Your task to perform on an android device: install app "LiveIn - Share Your Moment" Image 0: 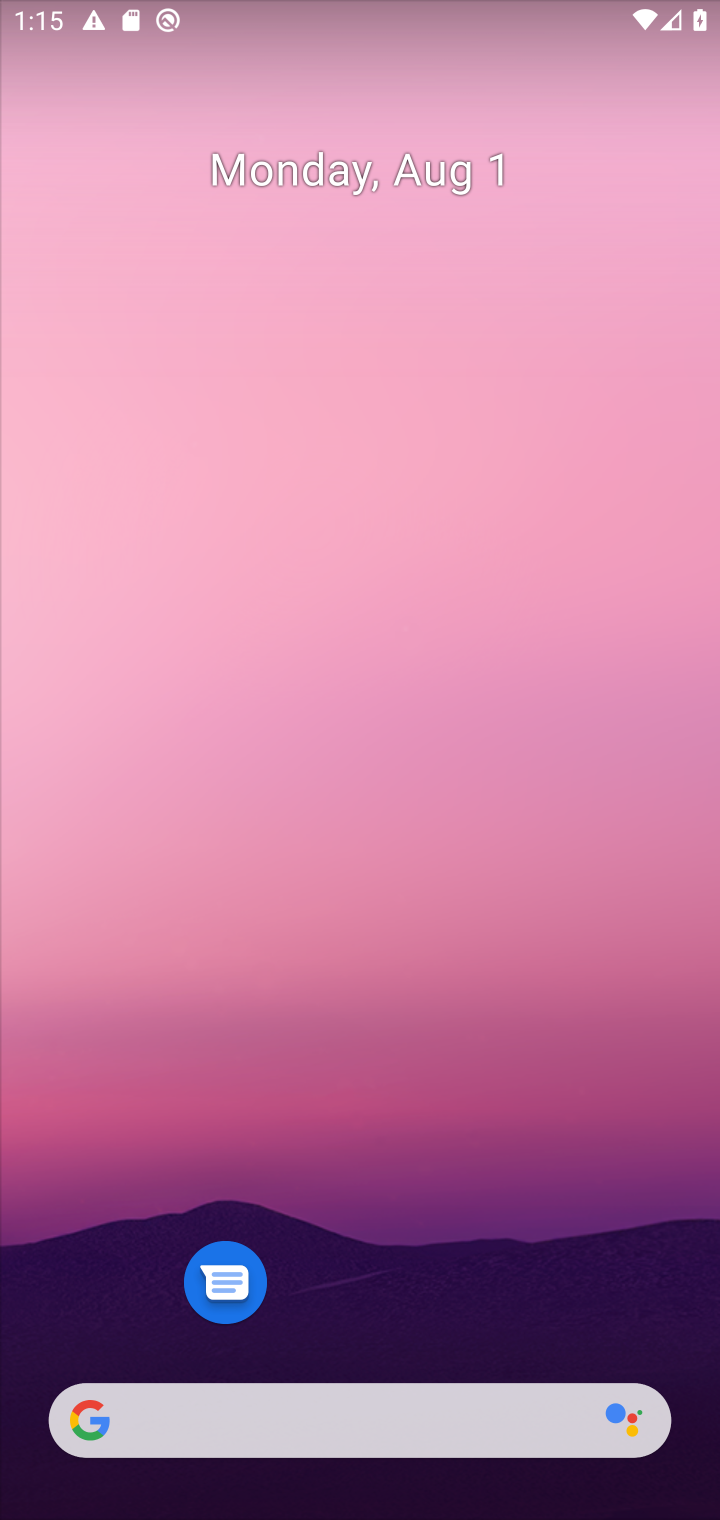
Step 0: drag from (316, 1350) to (311, 70)
Your task to perform on an android device: install app "LiveIn - Share Your Moment" Image 1: 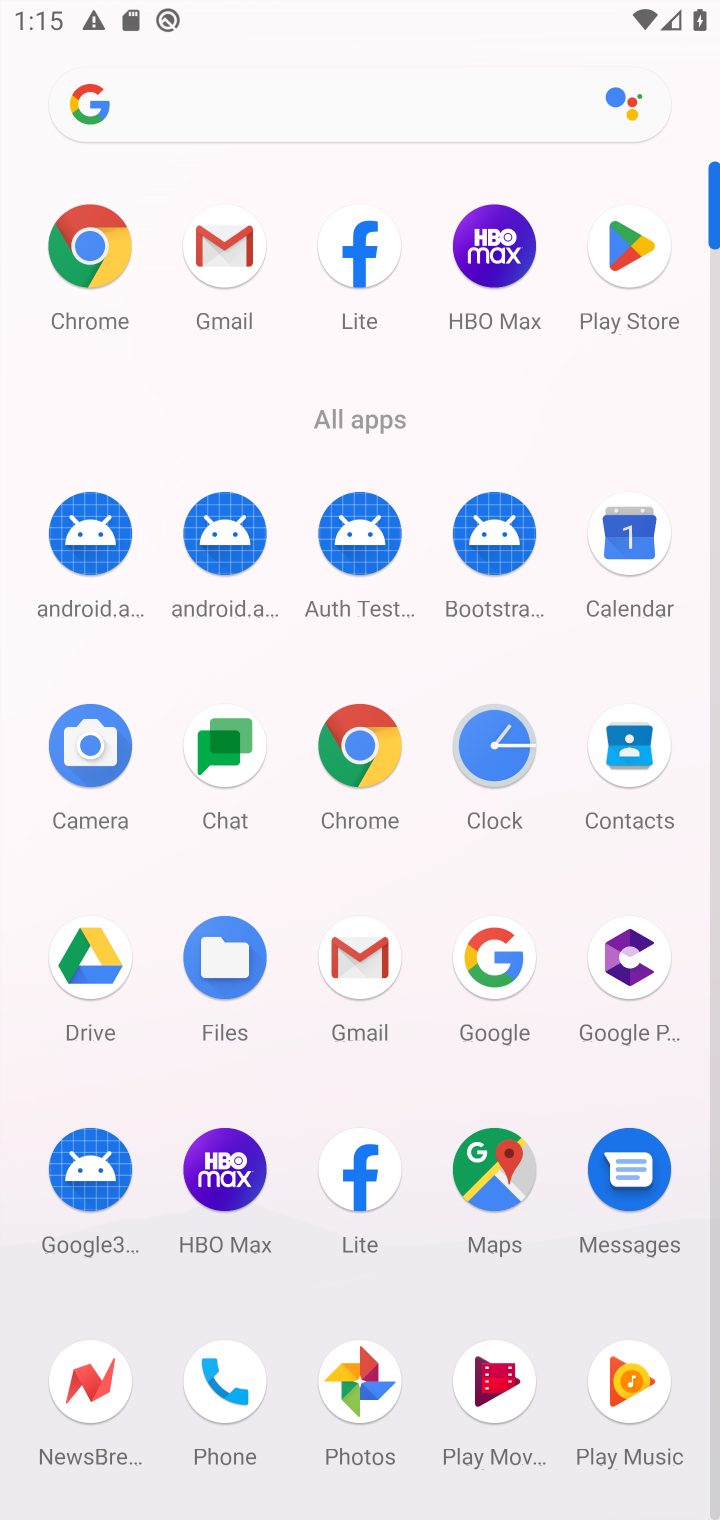
Step 1: click (655, 243)
Your task to perform on an android device: install app "LiveIn - Share Your Moment" Image 2: 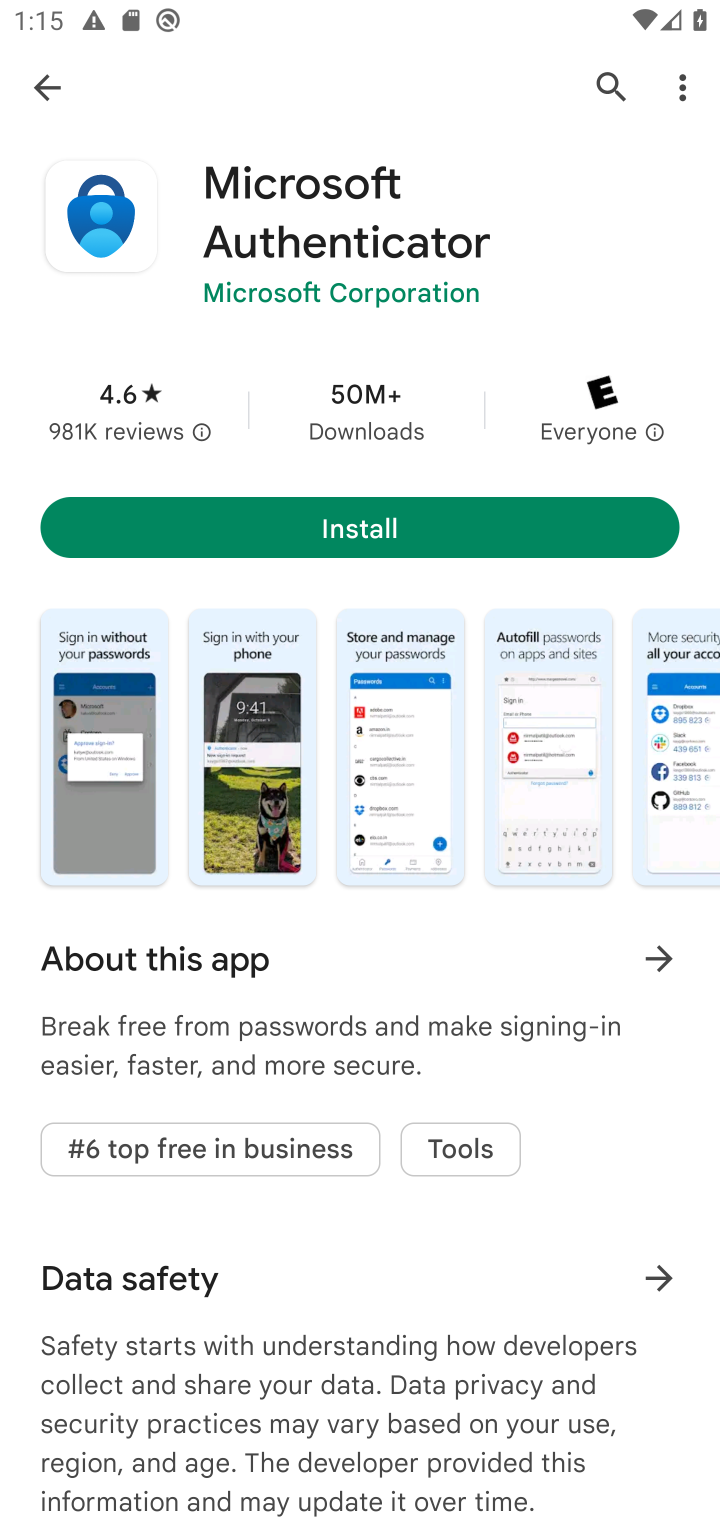
Step 2: click (17, 98)
Your task to perform on an android device: install app "LiveIn - Share Your Moment" Image 3: 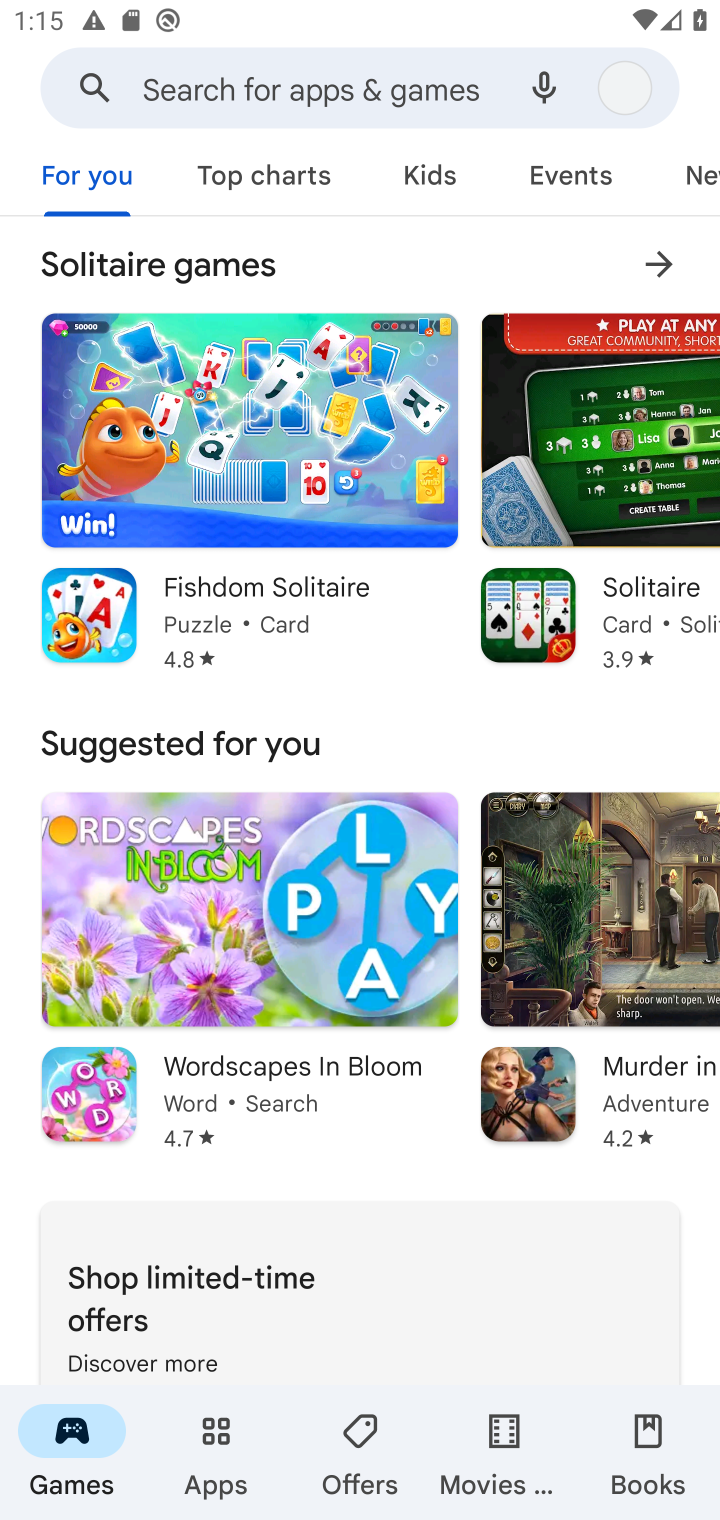
Step 3: click (192, 94)
Your task to perform on an android device: install app "LiveIn - Share Your Moment" Image 4: 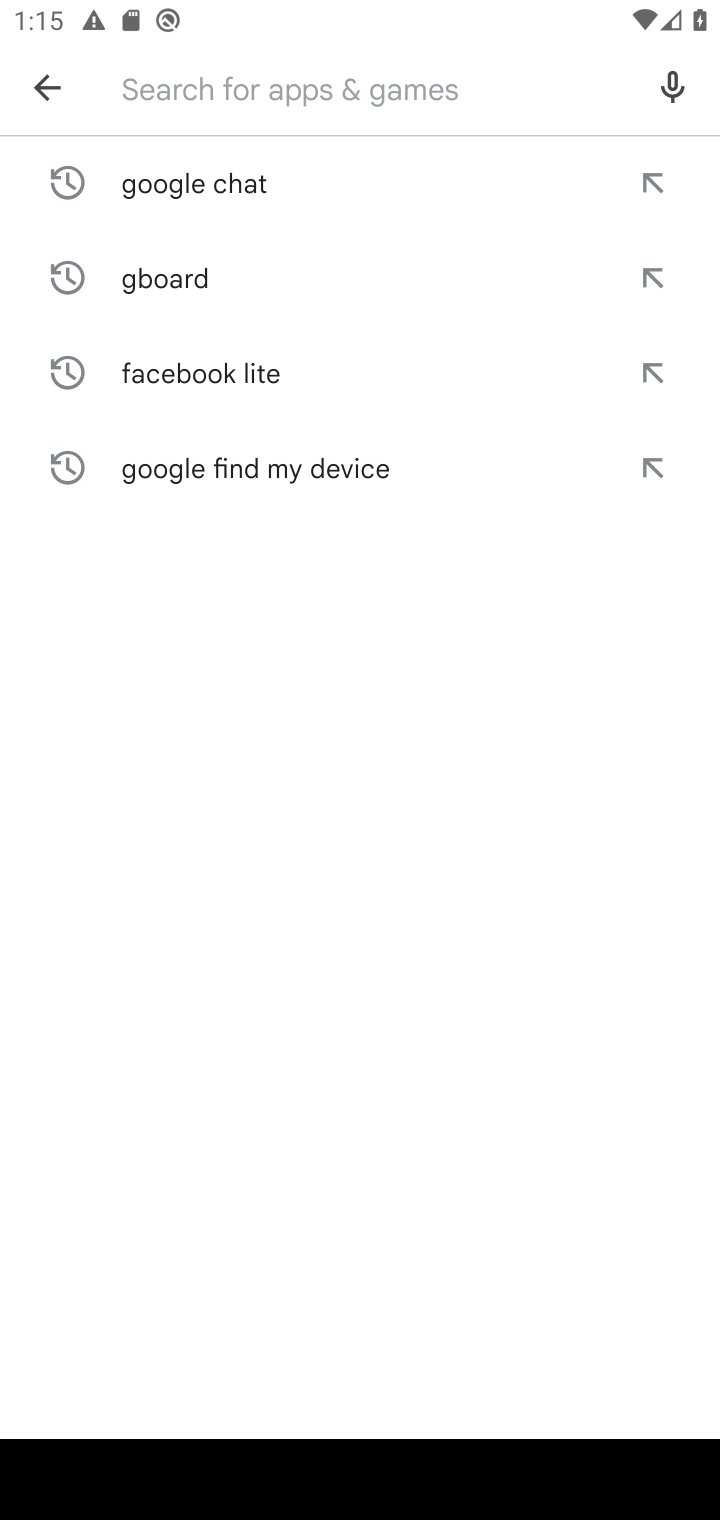
Step 4: type "LiveIn - Share Your Moment"
Your task to perform on an android device: install app "LiveIn - Share Your Moment" Image 5: 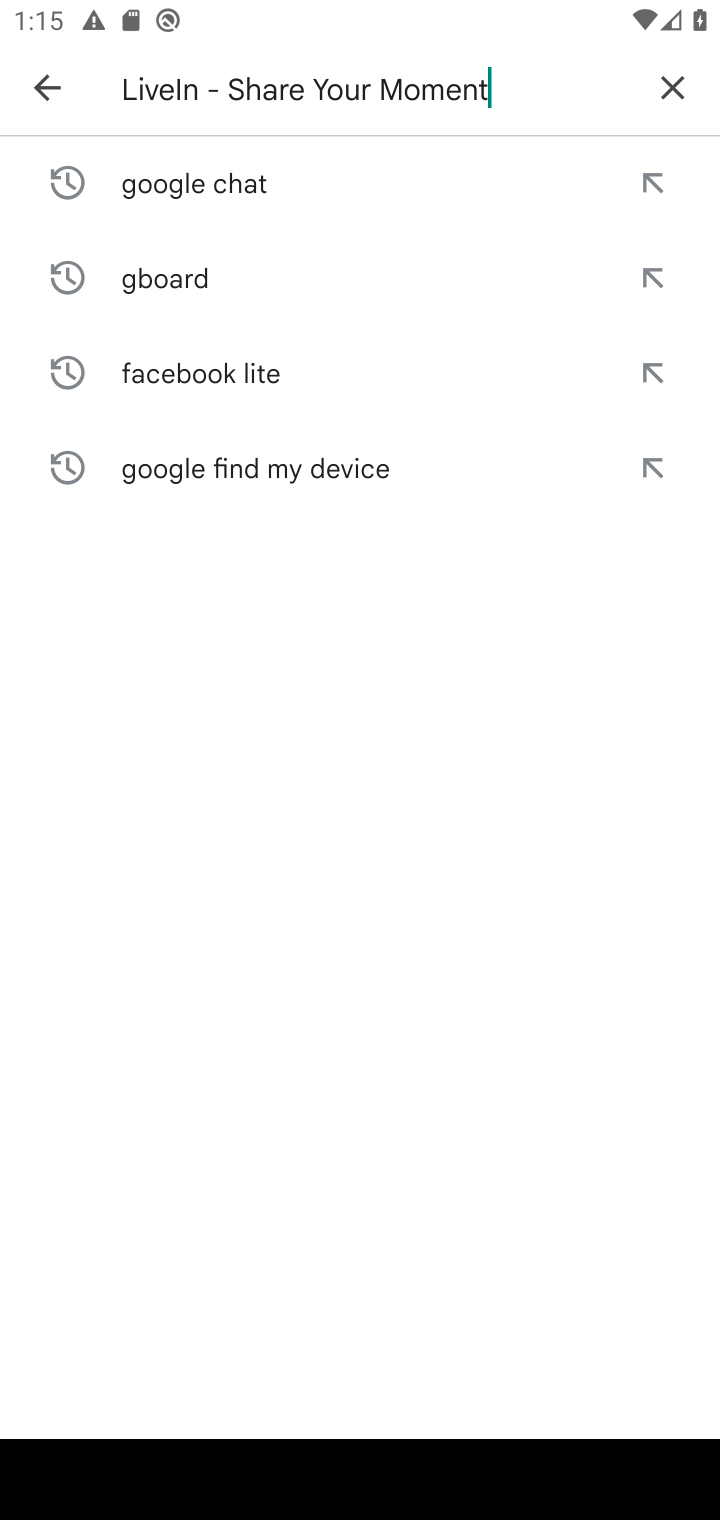
Step 5: type ""
Your task to perform on an android device: install app "LiveIn - Share Your Moment" Image 6: 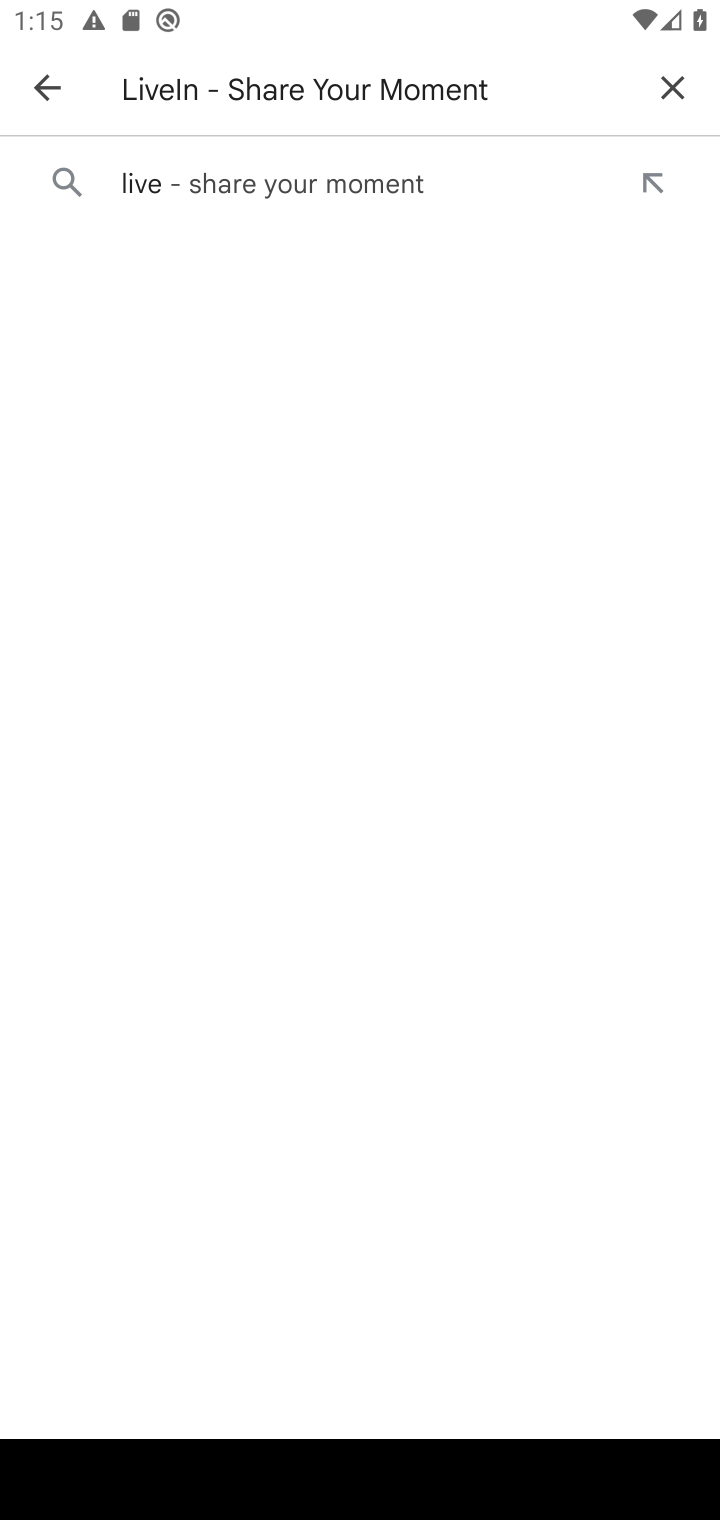
Step 6: click (289, 164)
Your task to perform on an android device: install app "LiveIn - Share Your Moment" Image 7: 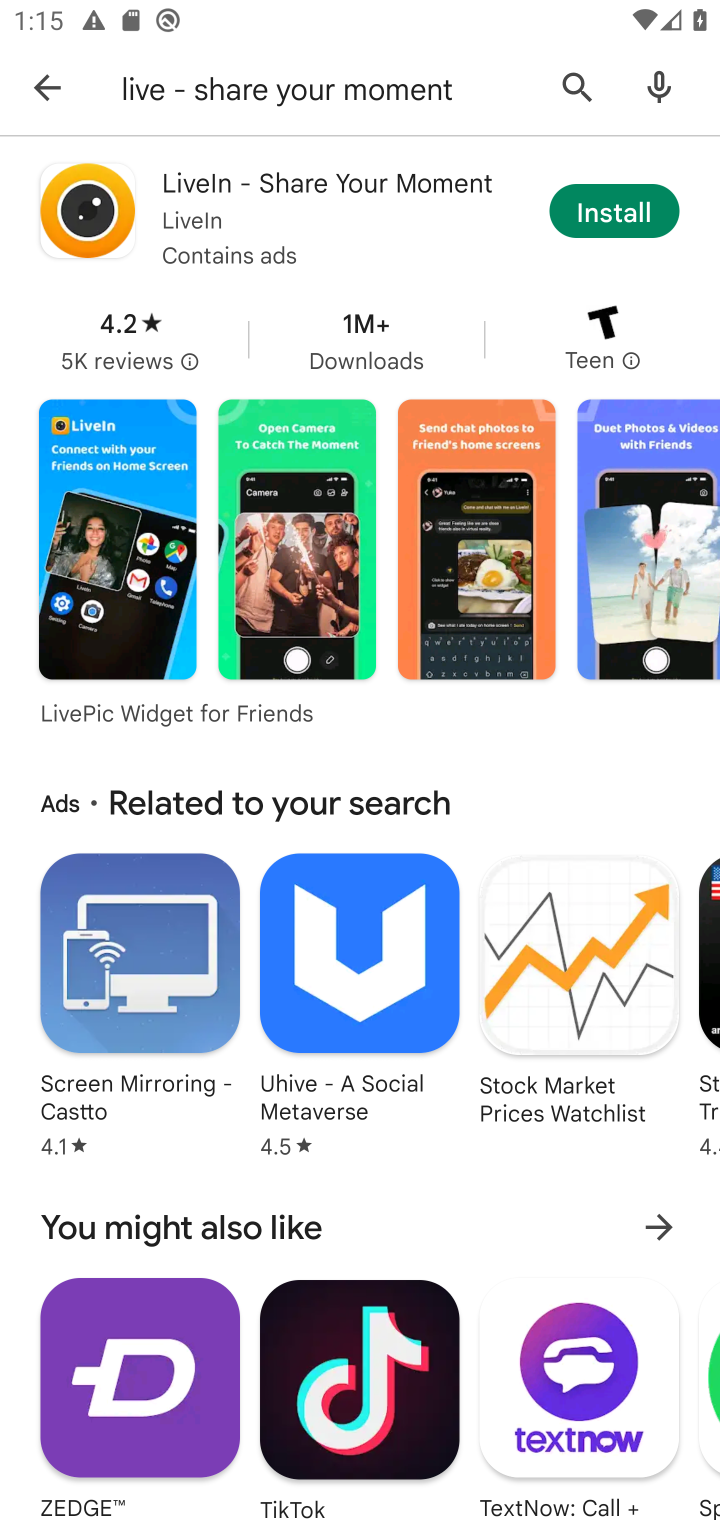
Step 7: click (558, 201)
Your task to perform on an android device: install app "LiveIn - Share Your Moment" Image 8: 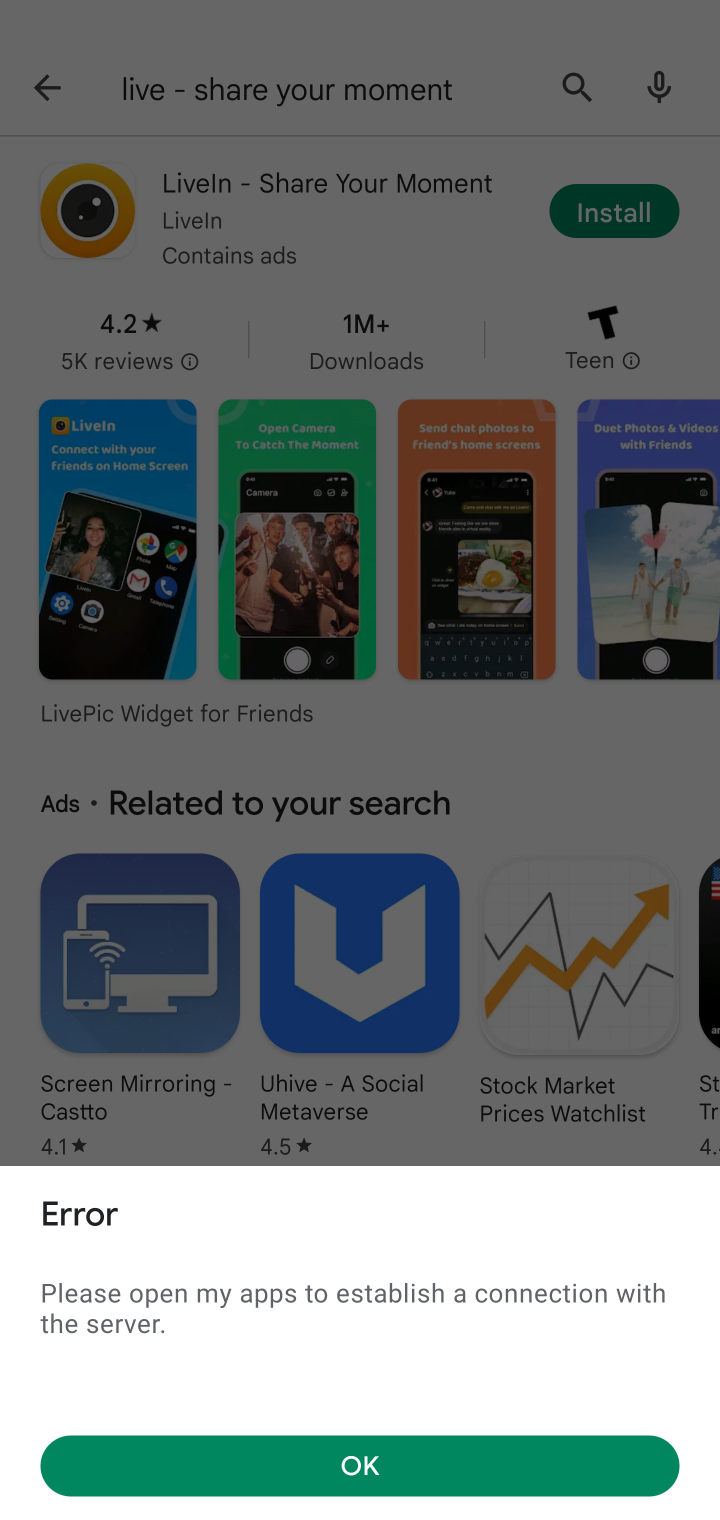
Step 8: click (359, 1472)
Your task to perform on an android device: install app "LiveIn - Share Your Moment" Image 9: 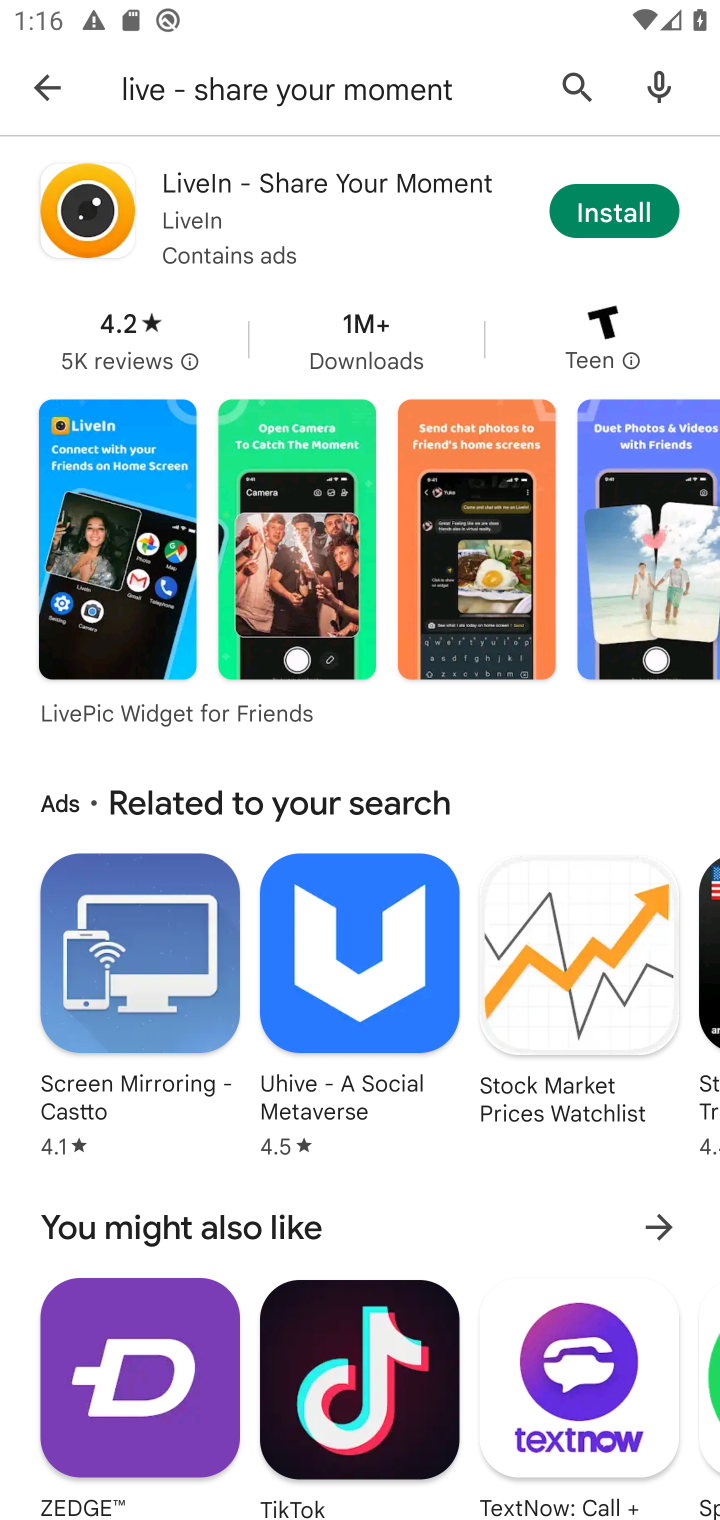
Step 9: task complete